Your task to perform on an android device: move a message to another label in the gmail app Image 0: 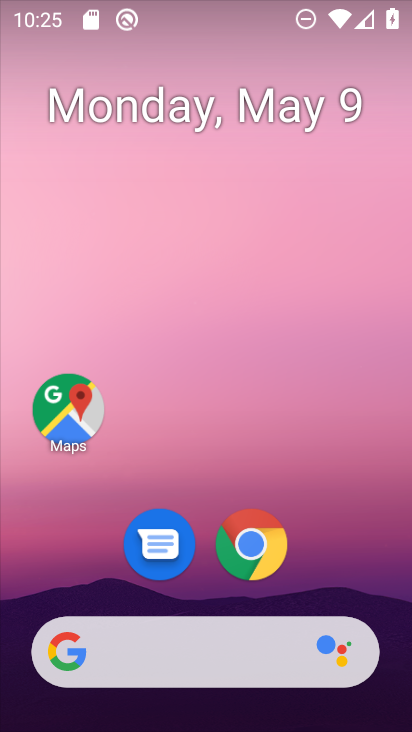
Step 0: press home button
Your task to perform on an android device: move a message to another label in the gmail app Image 1: 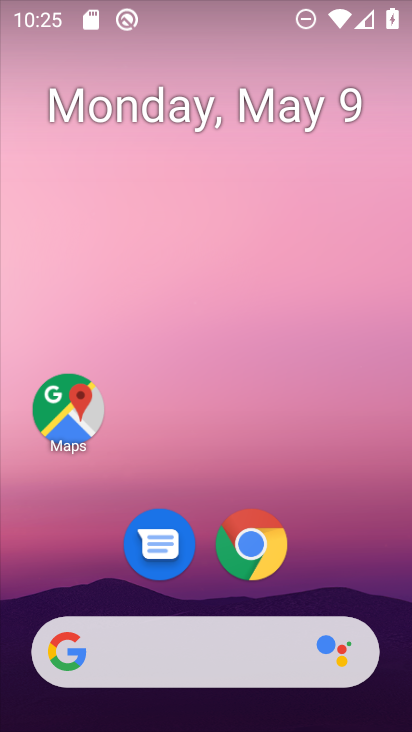
Step 1: drag from (335, 542) to (200, 35)
Your task to perform on an android device: move a message to another label in the gmail app Image 2: 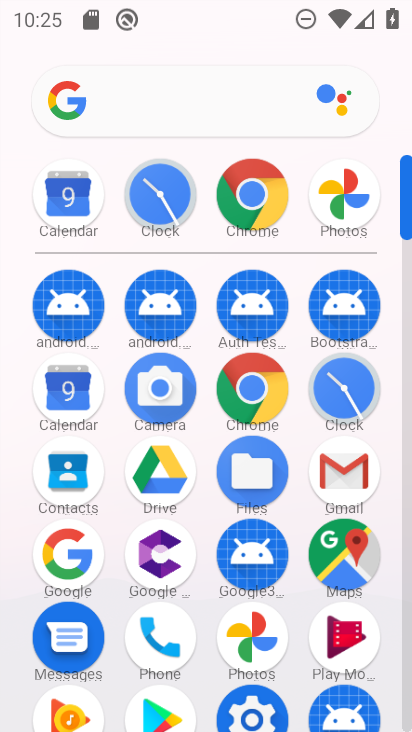
Step 2: click (346, 477)
Your task to perform on an android device: move a message to another label in the gmail app Image 3: 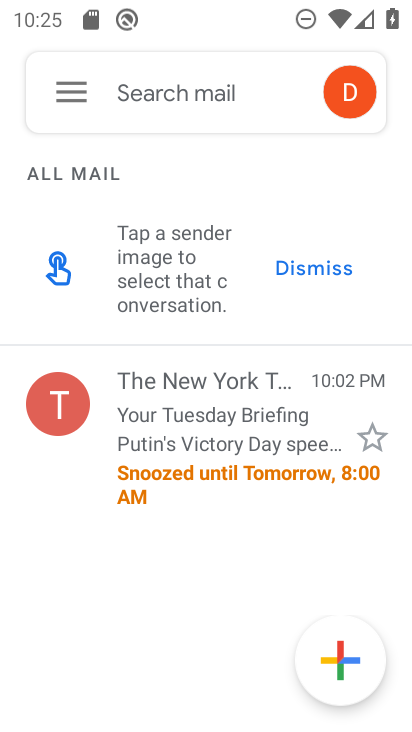
Step 3: click (64, 95)
Your task to perform on an android device: move a message to another label in the gmail app Image 4: 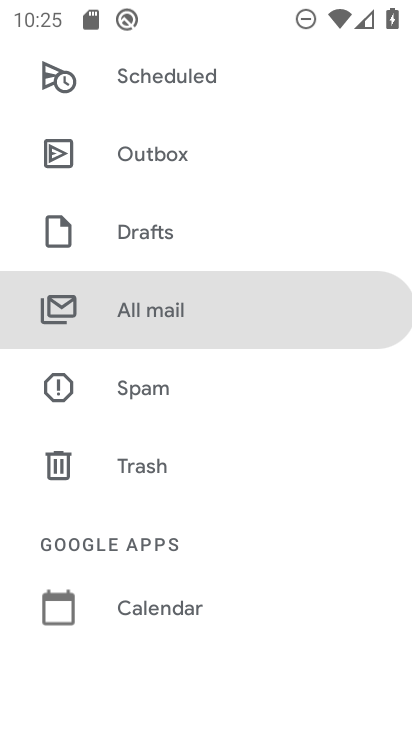
Step 4: drag from (214, 219) to (239, 715)
Your task to perform on an android device: move a message to another label in the gmail app Image 5: 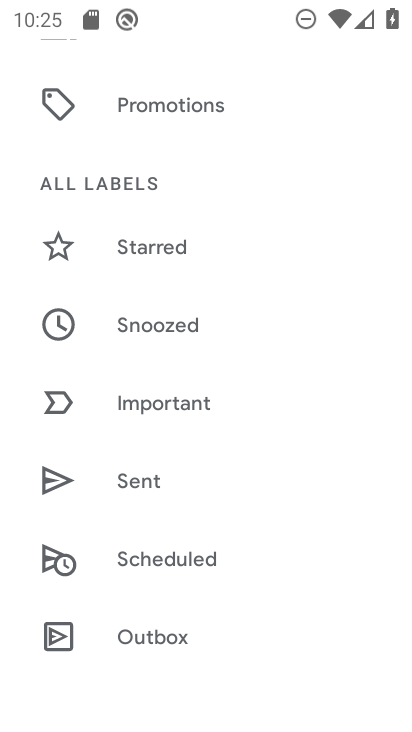
Step 5: drag from (223, 542) to (85, 98)
Your task to perform on an android device: move a message to another label in the gmail app Image 6: 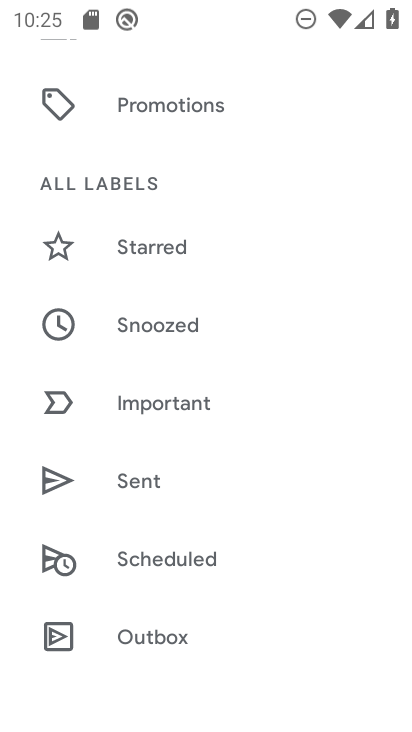
Step 6: drag from (204, 495) to (182, 152)
Your task to perform on an android device: move a message to another label in the gmail app Image 7: 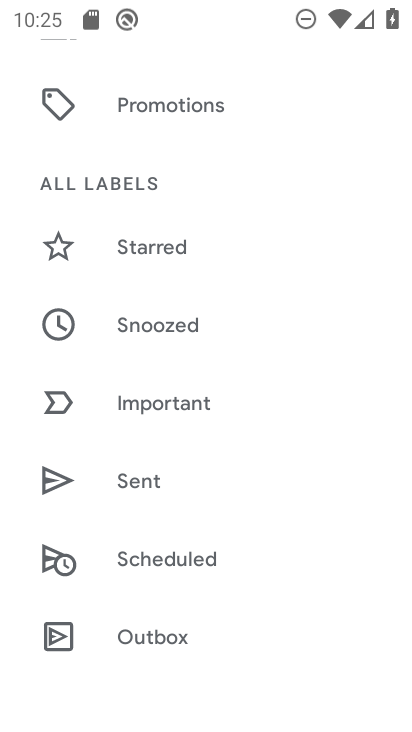
Step 7: drag from (237, 570) to (237, 202)
Your task to perform on an android device: move a message to another label in the gmail app Image 8: 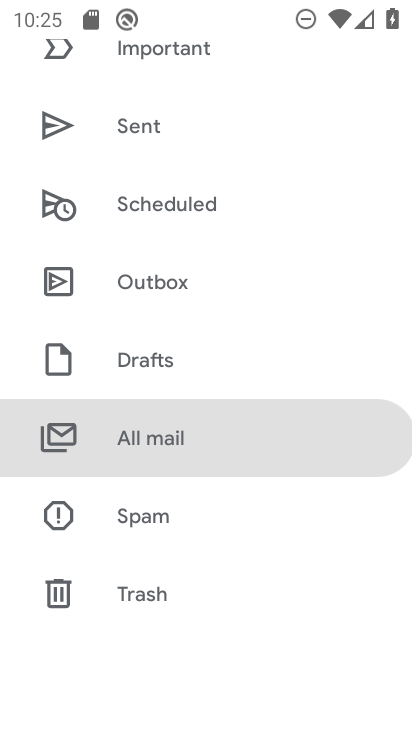
Step 8: click (158, 434)
Your task to perform on an android device: move a message to another label in the gmail app Image 9: 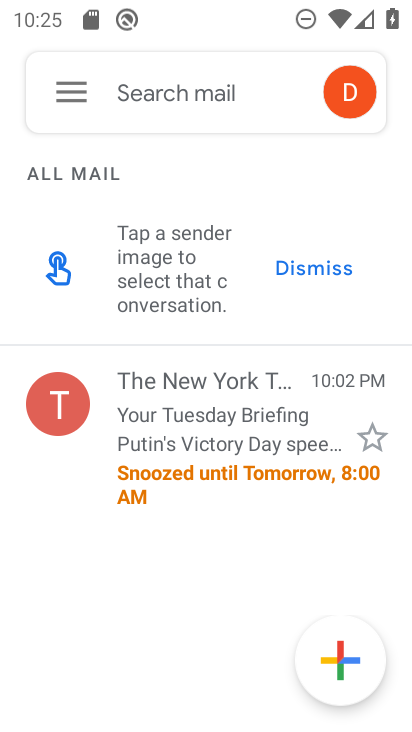
Step 9: click (310, 433)
Your task to perform on an android device: move a message to another label in the gmail app Image 10: 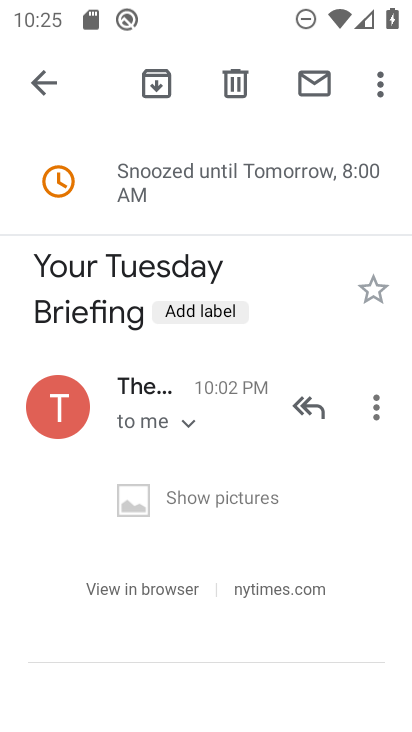
Step 10: click (382, 82)
Your task to perform on an android device: move a message to another label in the gmail app Image 11: 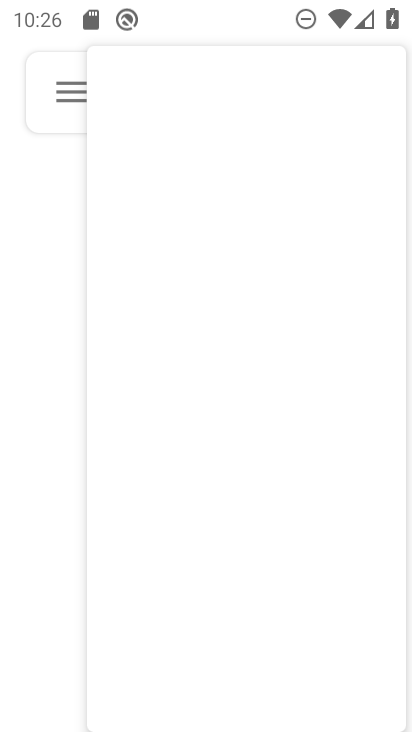
Step 11: click (50, 275)
Your task to perform on an android device: move a message to another label in the gmail app Image 12: 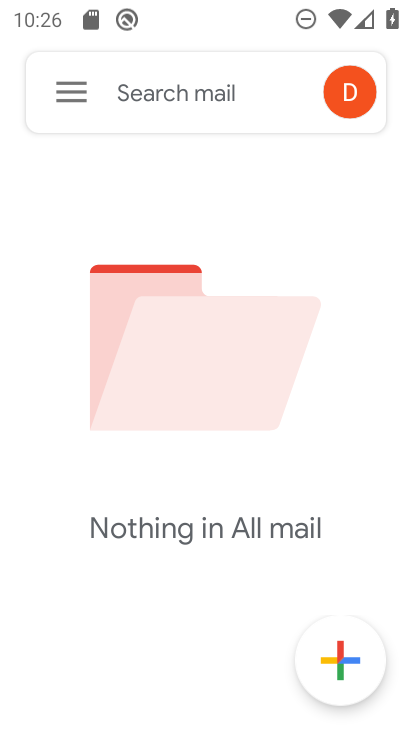
Step 12: task complete